Your task to perform on an android device: turn off notifications in google photos Image 0: 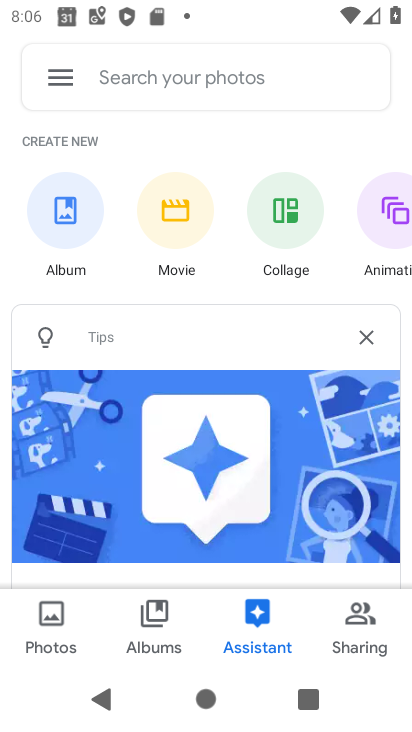
Step 0: press home button
Your task to perform on an android device: turn off notifications in google photos Image 1: 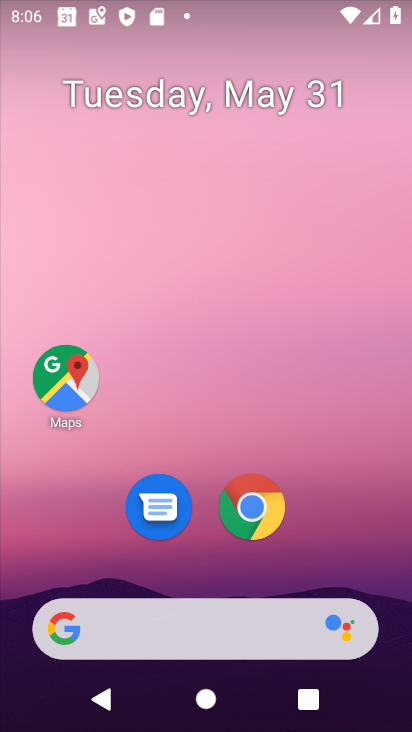
Step 1: drag from (338, 460) to (394, 133)
Your task to perform on an android device: turn off notifications in google photos Image 2: 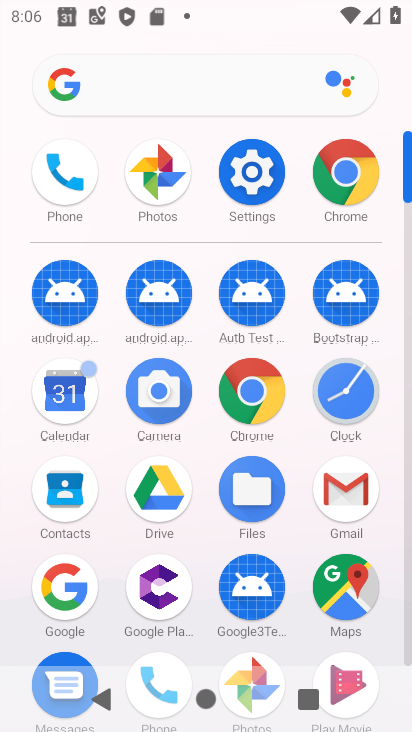
Step 2: drag from (300, 560) to (328, 322)
Your task to perform on an android device: turn off notifications in google photos Image 3: 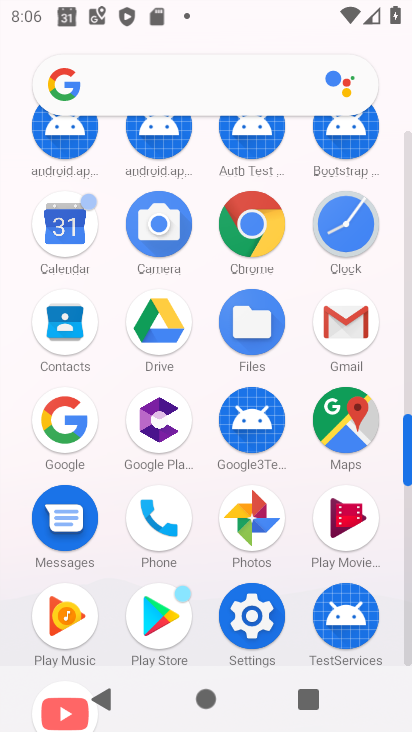
Step 3: click (267, 530)
Your task to perform on an android device: turn off notifications in google photos Image 4: 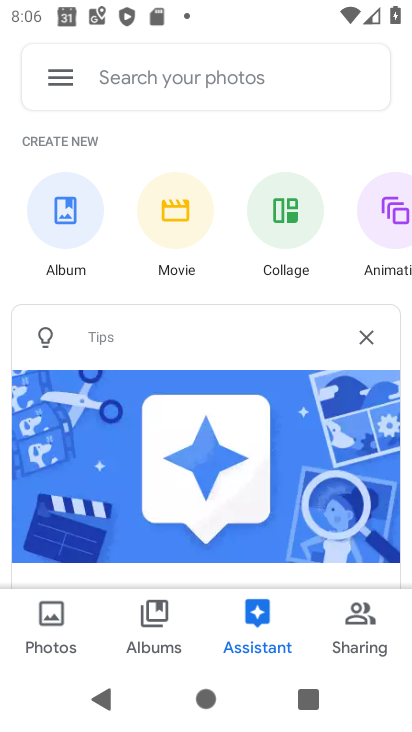
Step 4: click (54, 85)
Your task to perform on an android device: turn off notifications in google photos Image 5: 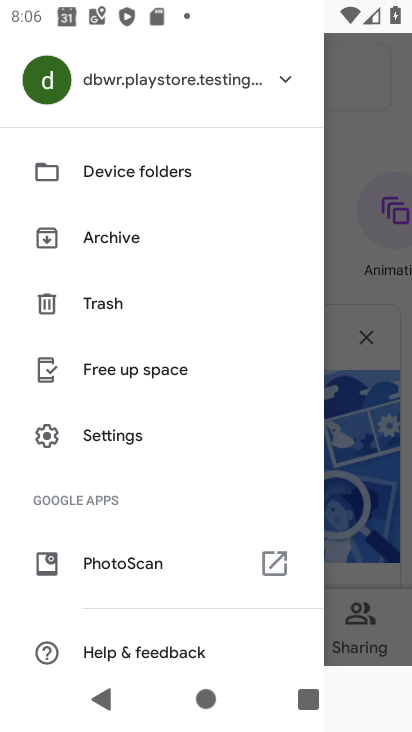
Step 5: drag from (177, 572) to (254, 90)
Your task to perform on an android device: turn off notifications in google photos Image 6: 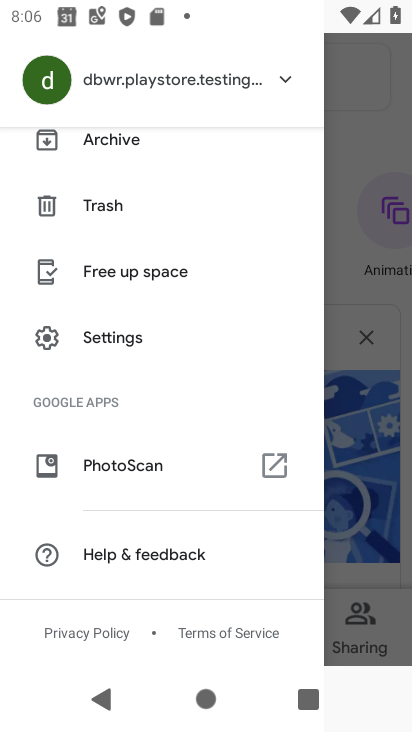
Step 6: drag from (153, 605) to (281, 122)
Your task to perform on an android device: turn off notifications in google photos Image 7: 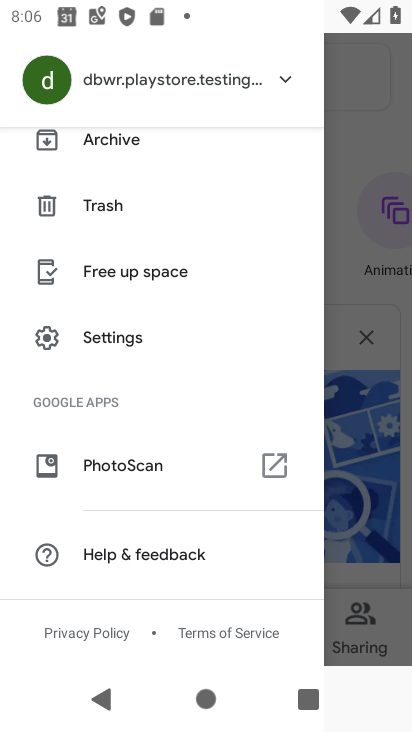
Step 7: drag from (208, 638) to (233, 223)
Your task to perform on an android device: turn off notifications in google photos Image 8: 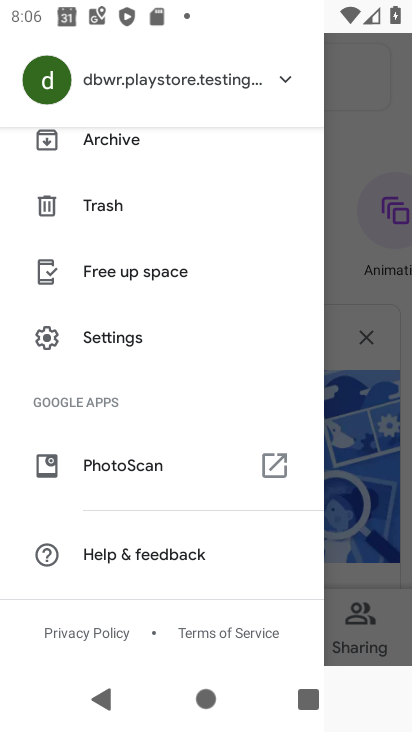
Step 8: click (120, 338)
Your task to perform on an android device: turn off notifications in google photos Image 9: 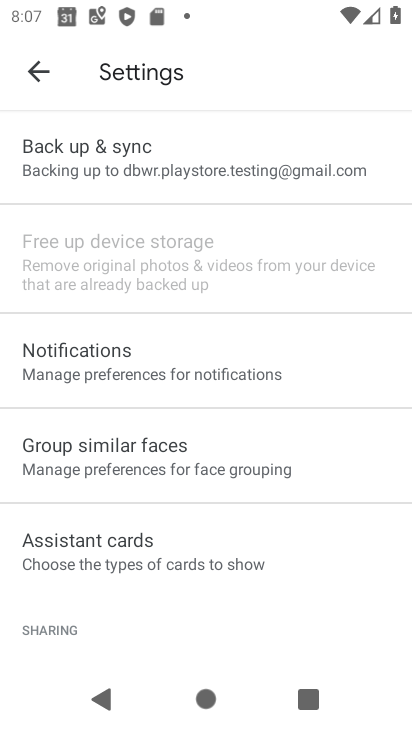
Step 9: drag from (259, 484) to (304, 288)
Your task to perform on an android device: turn off notifications in google photos Image 10: 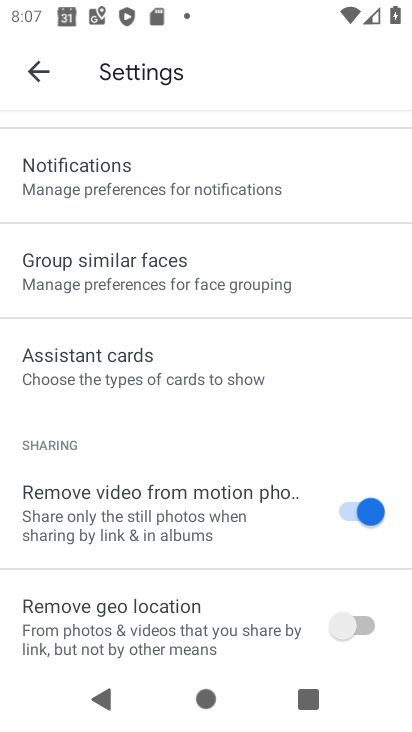
Step 10: click (228, 201)
Your task to perform on an android device: turn off notifications in google photos Image 11: 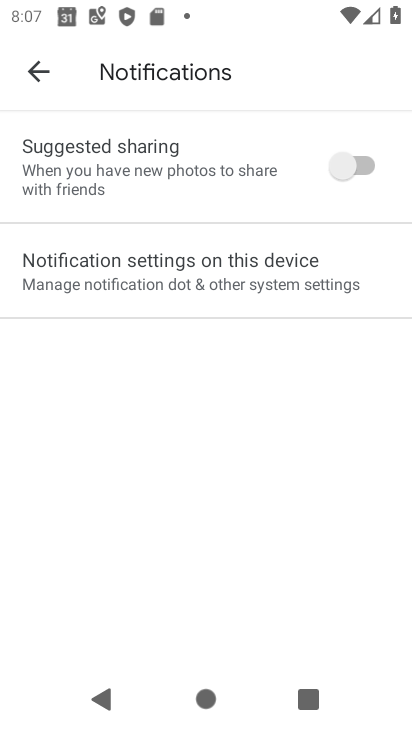
Step 11: click (243, 266)
Your task to perform on an android device: turn off notifications in google photos Image 12: 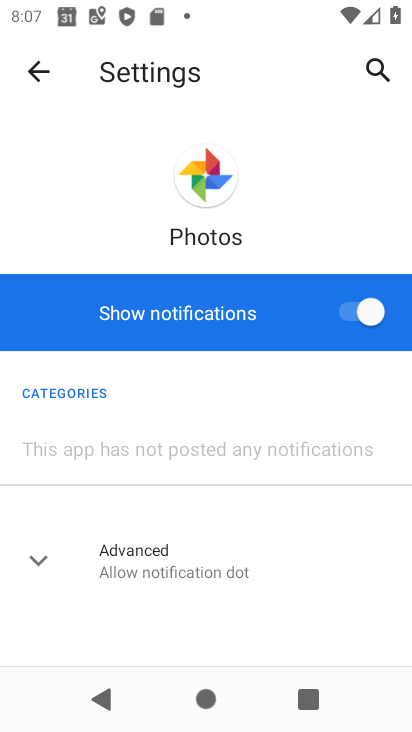
Step 12: click (368, 309)
Your task to perform on an android device: turn off notifications in google photos Image 13: 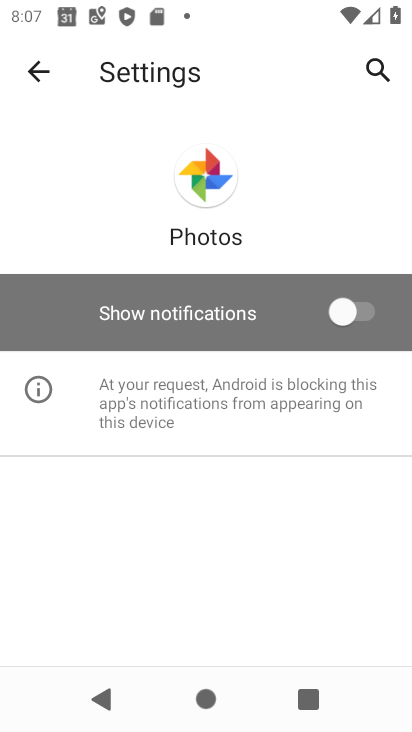
Step 13: task complete